Your task to perform on an android device: Clear the shopping cart on costco. Add macbook pro to the cart on costco Image 0: 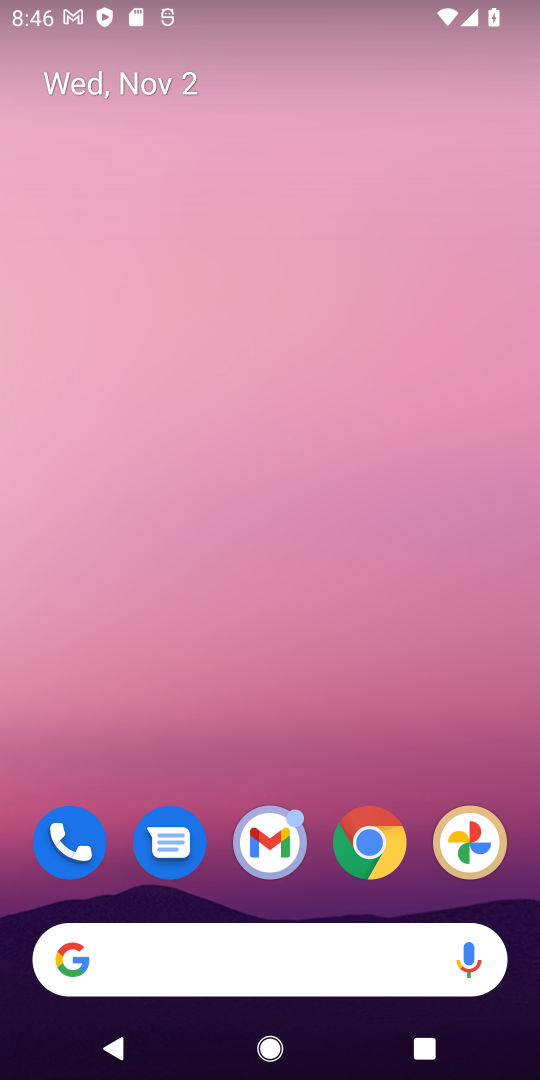
Step 0: drag from (332, 730) to (335, 124)
Your task to perform on an android device: Clear the shopping cart on costco. Add macbook pro to the cart on costco Image 1: 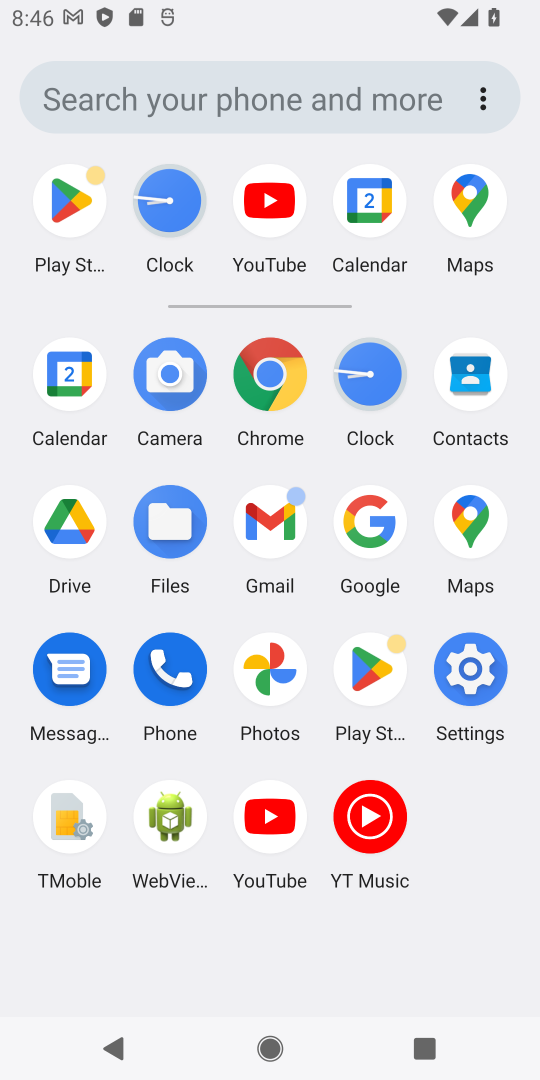
Step 1: click (378, 516)
Your task to perform on an android device: Clear the shopping cart on costco. Add macbook pro to the cart on costco Image 2: 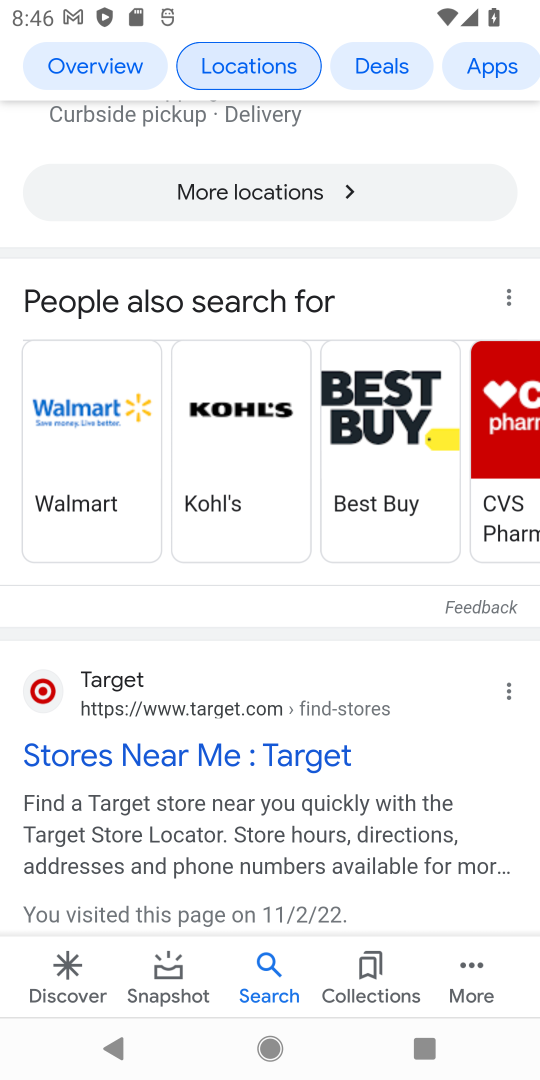
Step 2: drag from (246, 143) to (157, 896)
Your task to perform on an android device: Clear the shopping cart on costco. Add macbook pro to the cart on costco Image 3: 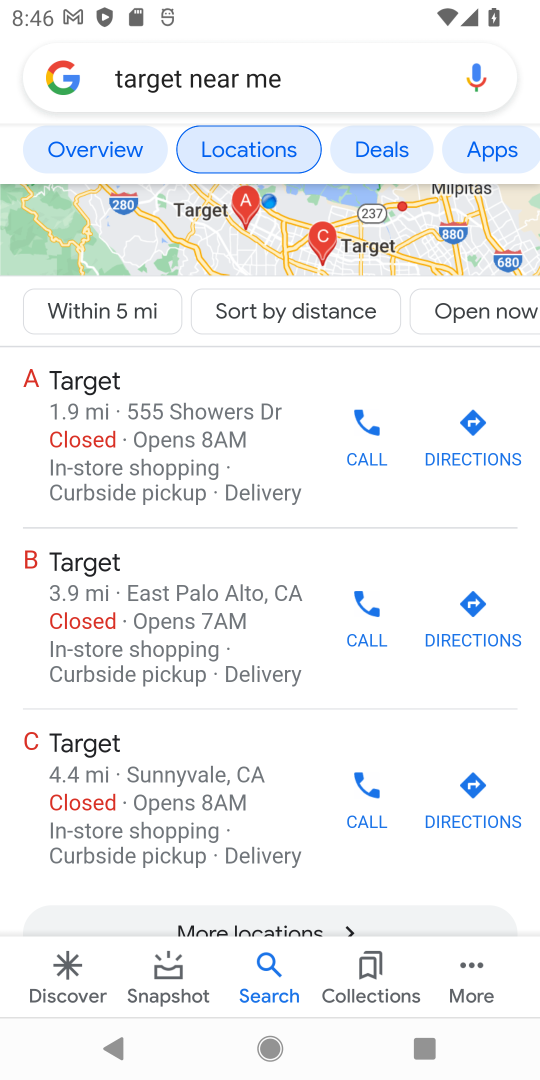
Step 3: drag from (223, 231) to (128, 856)
Your task to perform on an android device: Clear the shopping cart on costco. Add macbook pro to the cart on costco Image 4: 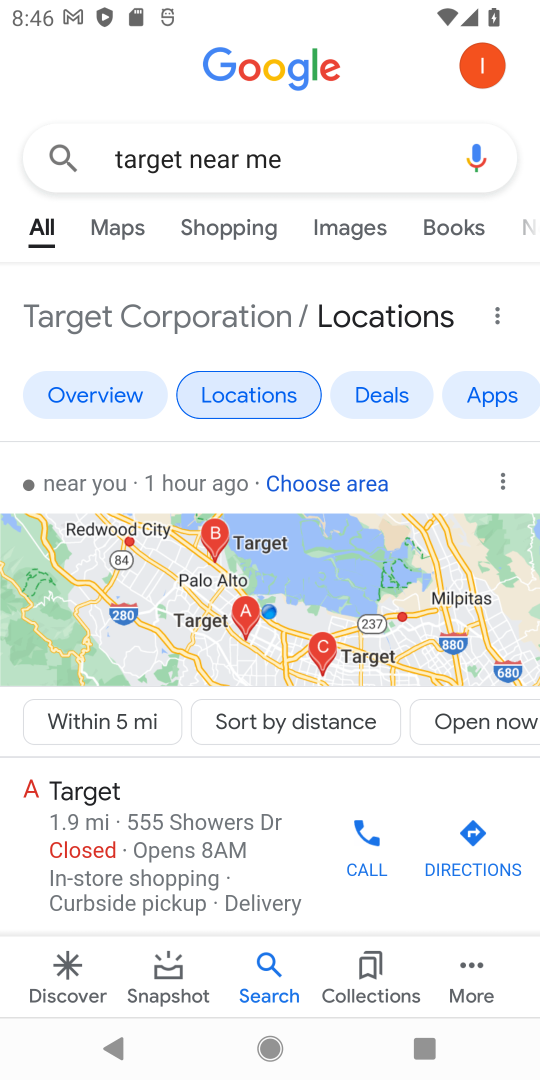
Step 4: click (277, 172)
Your task to perform on an android device: Clear the shopping cart on costco. Add macbook pro to the cart on costco Image 5: 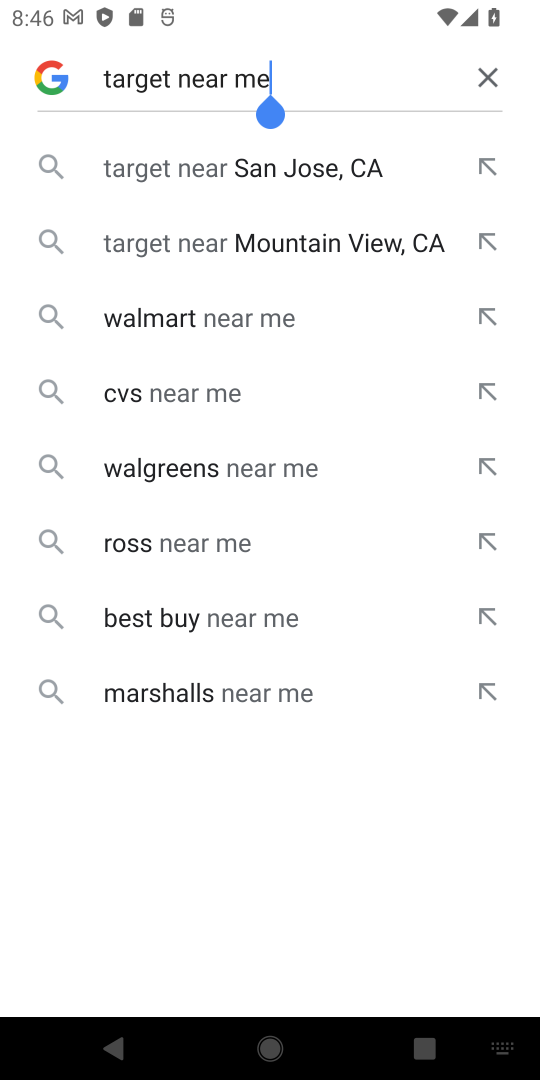
Step 5: click (476, 71)
Your task to perform on an android device: Clear the shopping cart on costco. Add macbook pro to the cart on costco Image 6: 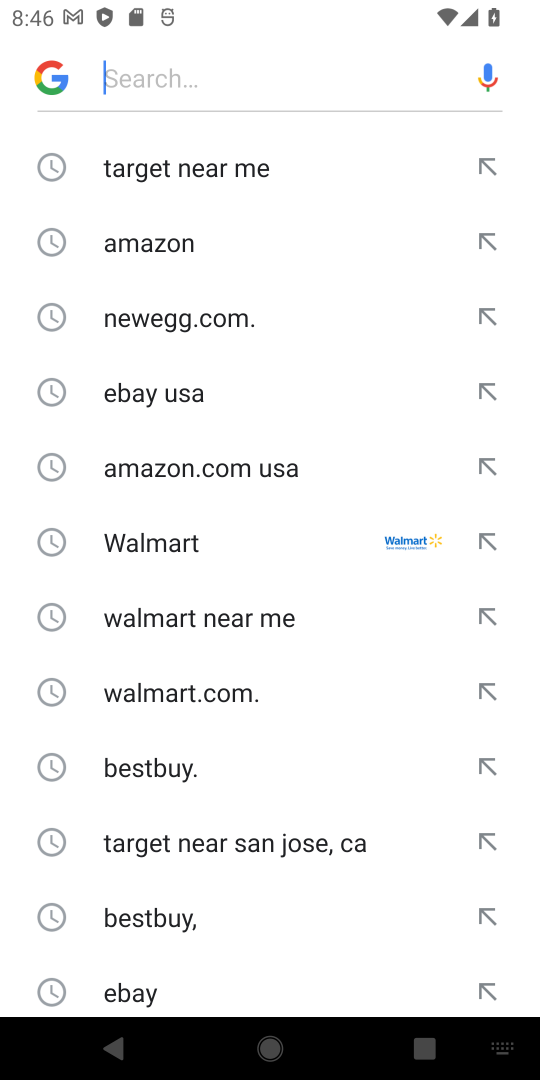
Step 6: click (214, 77)
Your task to perform on an android device: Clear the shopping cart on costco. Add macbook pro to the cart on costco Image 7: 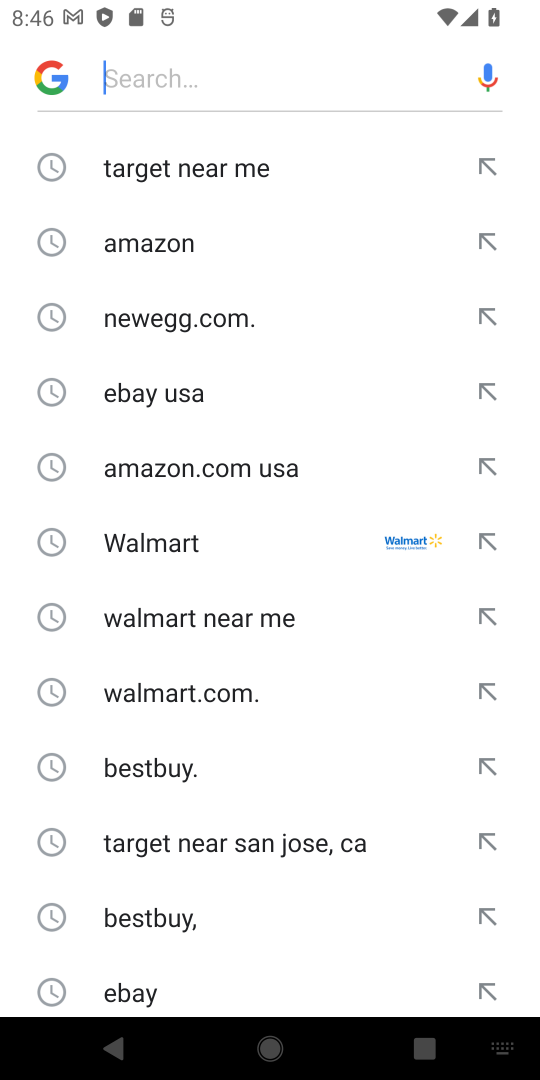
Step 7: type "costco "
Your task to perform on an android device: Clear the shopping cart on costco. Add macbook pro to the cart on costco Image 8: 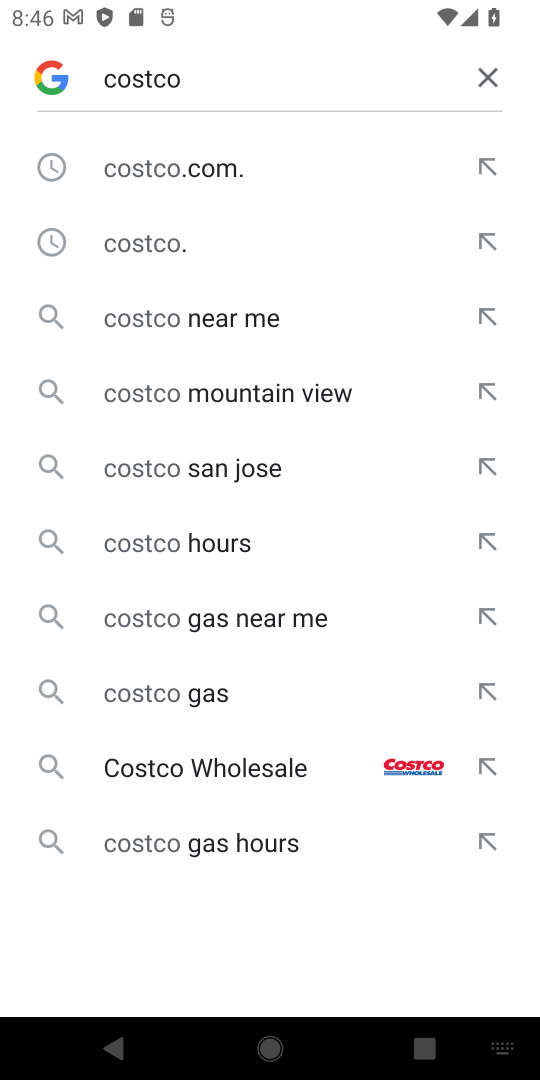
Step 8: click (249, 153)
Your task to perform on an android device: Clear the shopping cart on costco. Add macbook pro to the cart on costco Image 9: 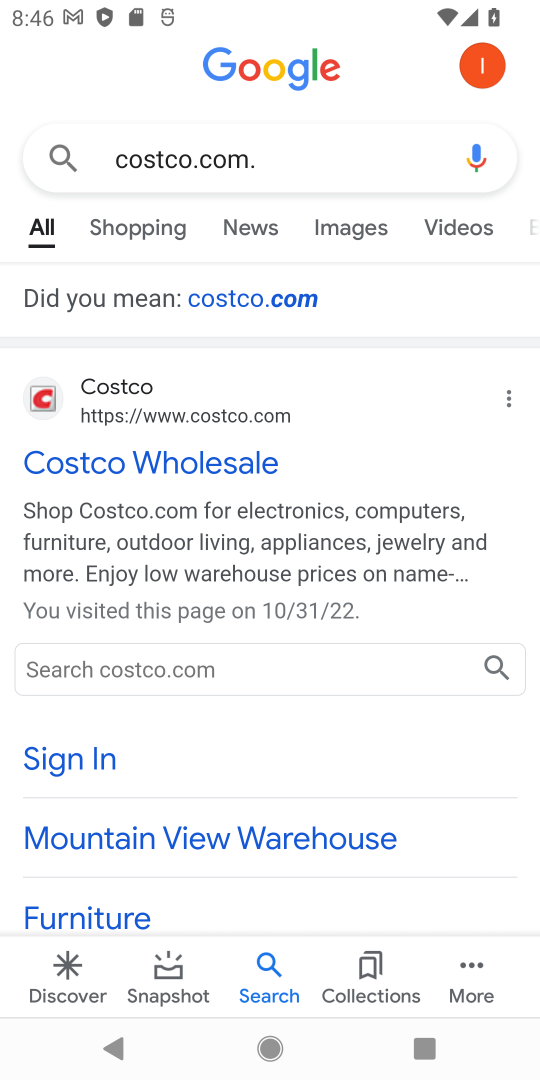
Step 9: click (40, 406)
Your task to perform on an android device: Clear the shopping cart on costco. Add macbook pro to the cart on costco Image 10: 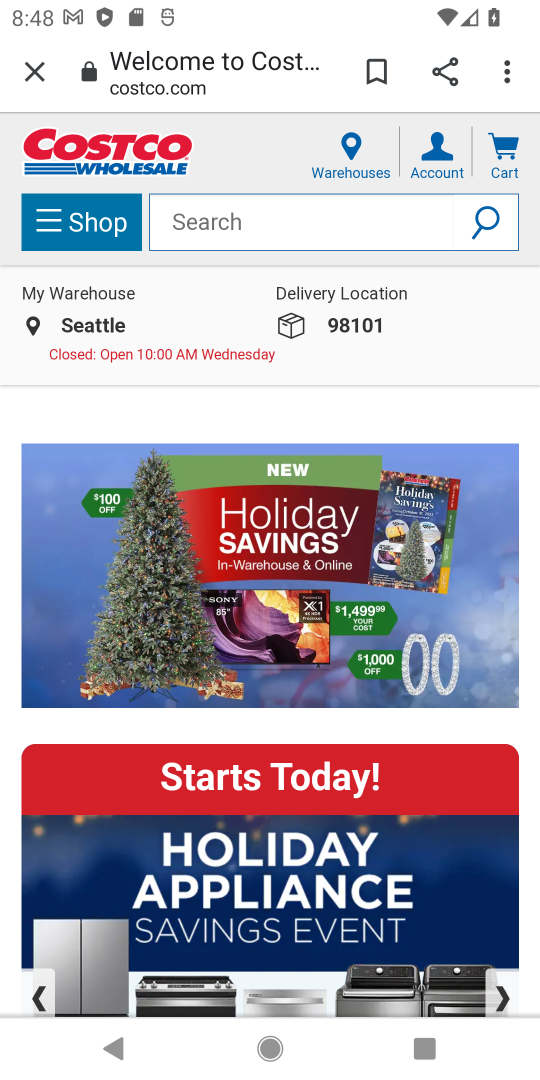
Step 10: click (286, 207)
Your task to perform on an android device: Clear the shopping cart on costco. Add macbook pro to the cart on costco Image 11: 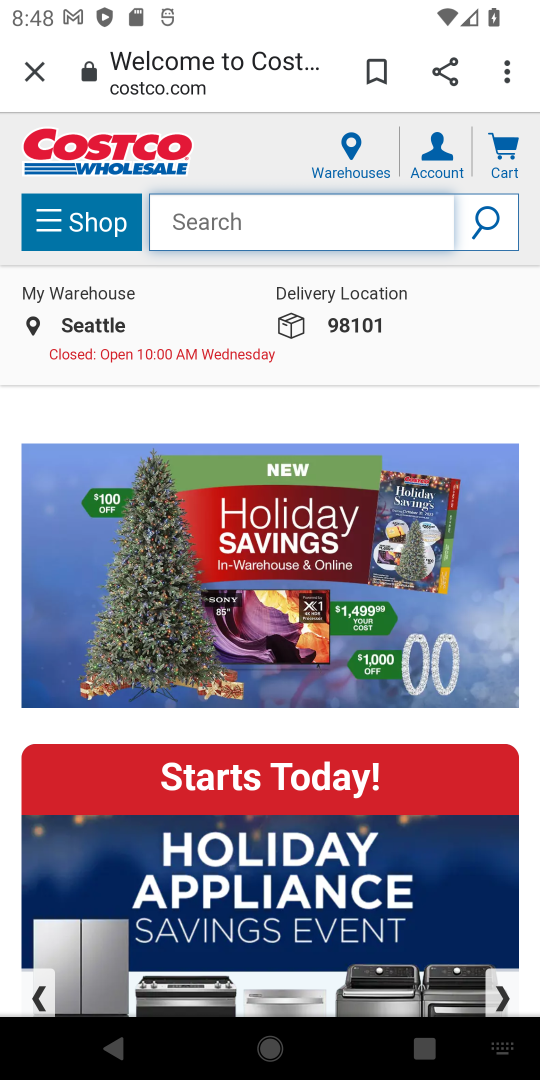
Step 11: type "macbook "
Your task to perform on an android device: Clear the shopping cart on costco. Add macbook pro to the cart on costco Image 12: 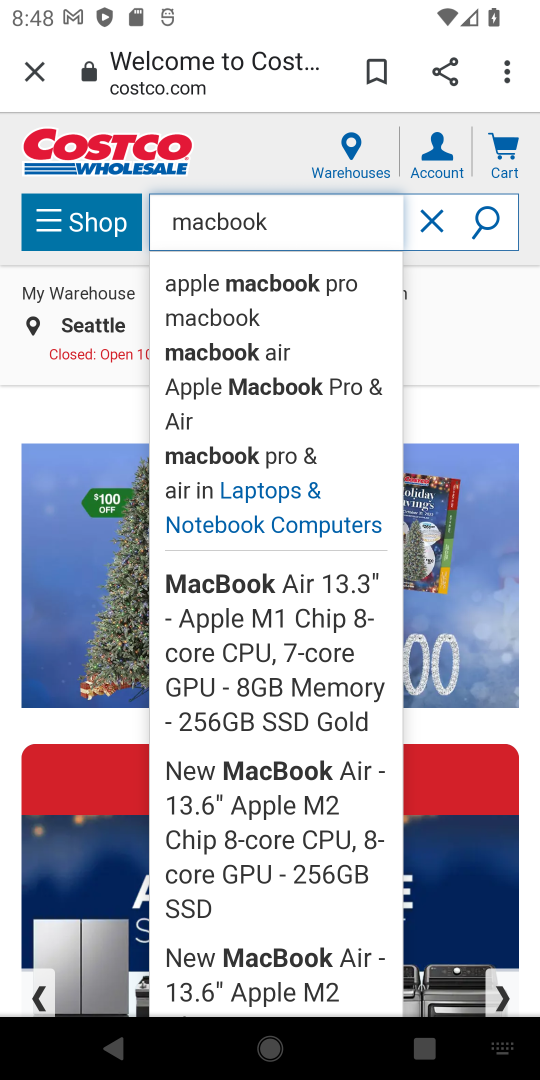
Step 12: click (215, 454)
Your task to perform on an android device: Clear the shopping cart on costco. Add macbook pro to the cart on costco Image 13: 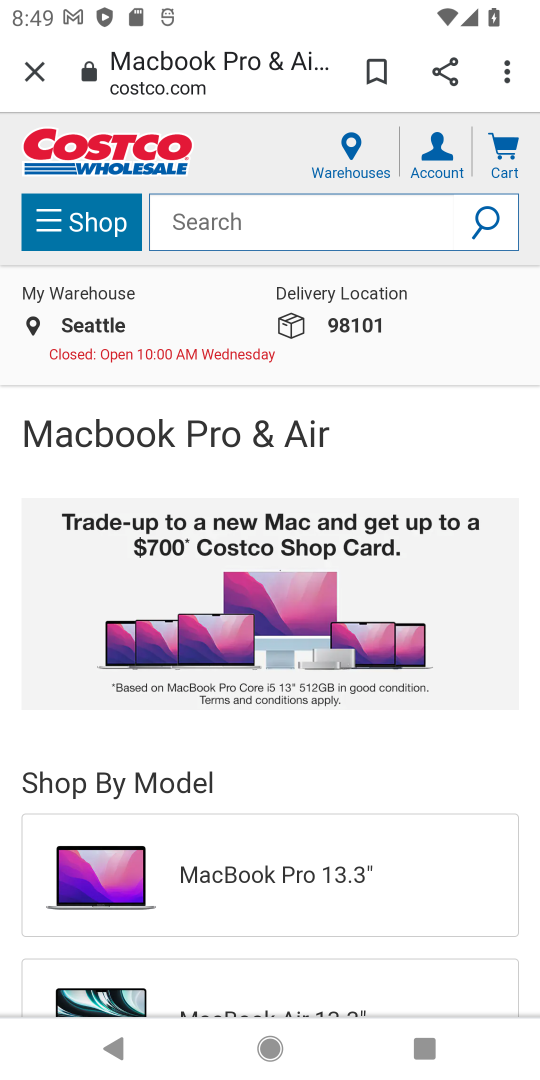
Step 13: drag from (225, 849) to (231, 572)
Your task to perform on an android device: Clear the shopping cart on costco. Add macbook pro to the cart on costco Image 14: 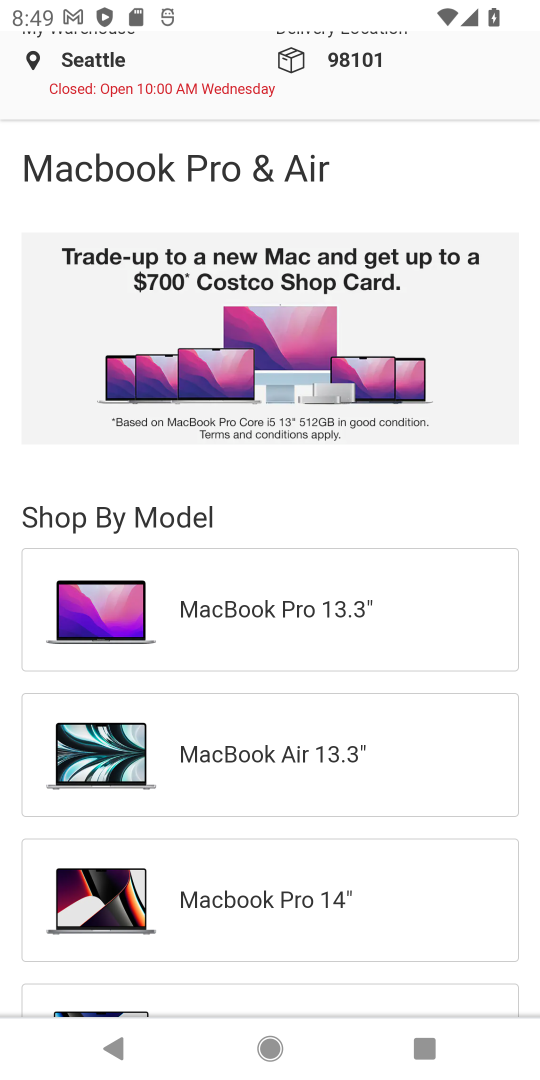
Step 14: click (205, 602)
Your task to perform on an android device: Clear the shopping cart on costco. Add macbook pro to the cart on costco Image 15: 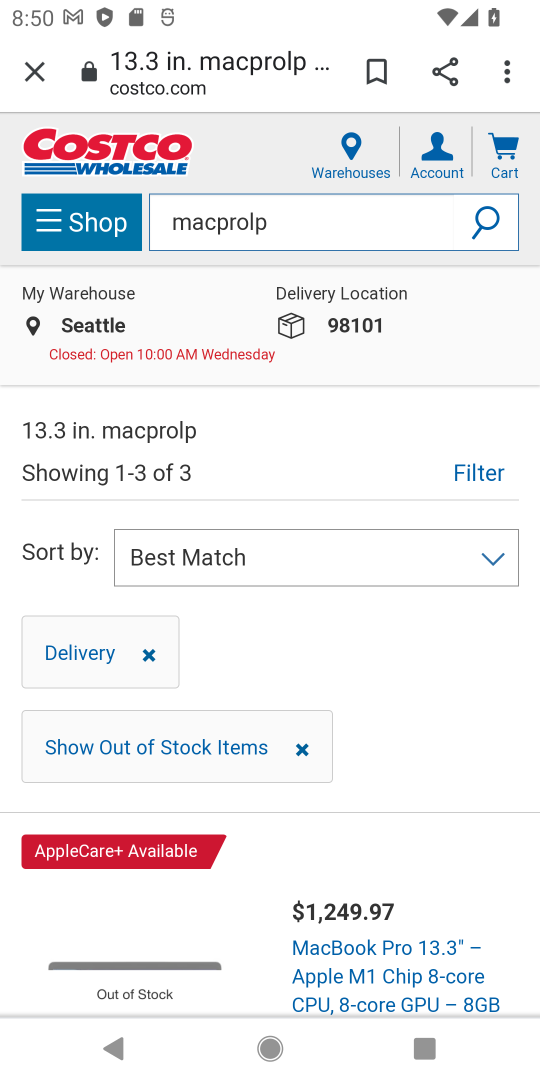
Step 15: drag from (292, 871) to (426, 298)
Your task to perform on an android device: Clear the shopping cart on costco. Add macbook pro to the cart on costco Image 16: 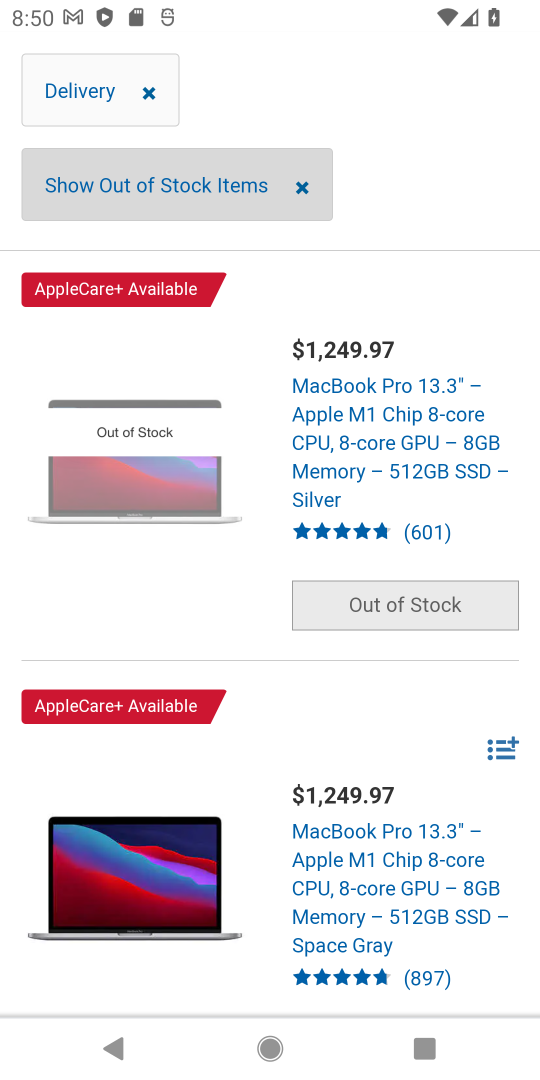
Step 16: drag from (276, 371) to (263, 926)
Your task to perform on an android device: Clear the shopping cart on costco. Add macbook pro to the cart on costco Image 17: 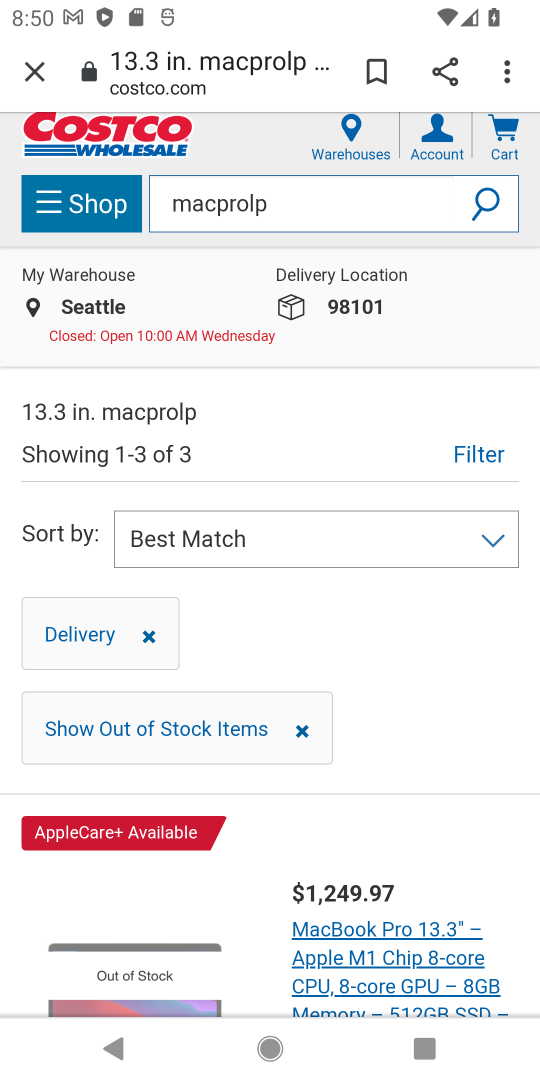
Step 17: press back button
Your task to perform on an android device: Clear the shopping cart on costco. Add macbook pro to the cart on costco Image 18: 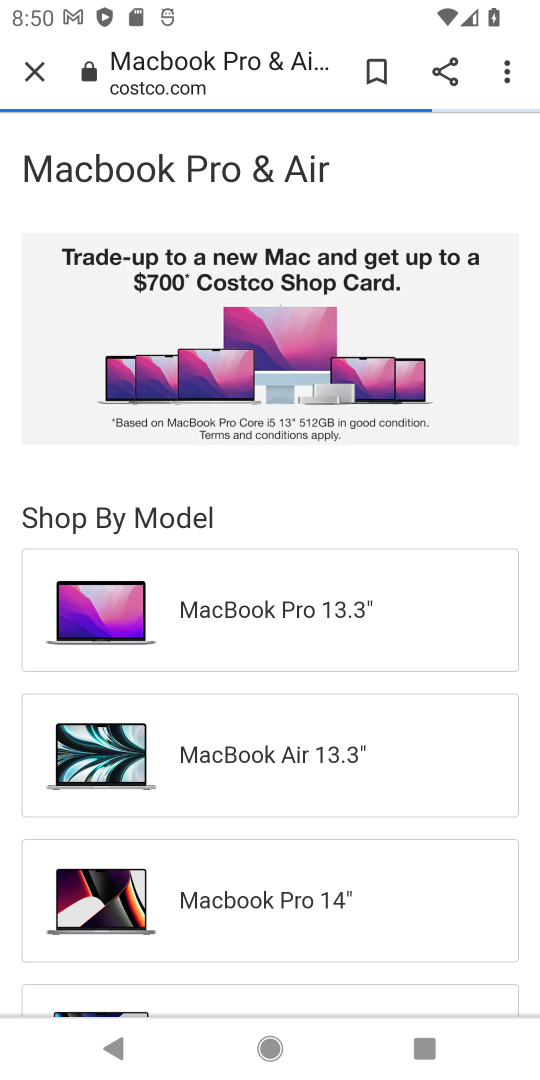
Step 18: click (109, 623)
Your task to perform on an android device: Clear the shopping cart on costco. Add macbook pro to the cart on costco Image 19: 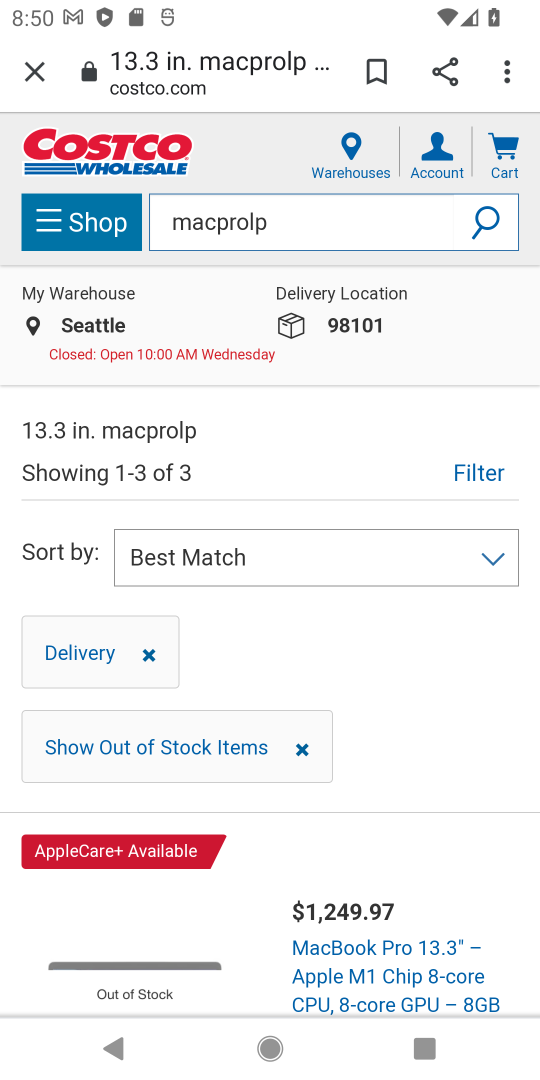
Step 19: drag from (173, 836) to (280, 195)
Your task to perform on an android device: Clear the shopping cart on costco. Add macbook pro to the cart on costco Image 20: 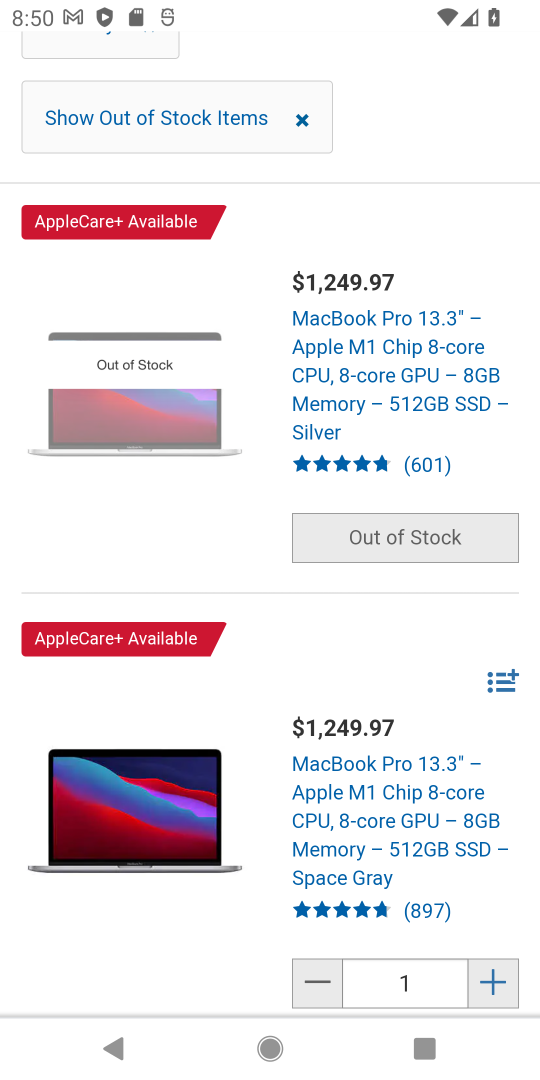
Step 20: drag from (306, 815) to (376, 622)
Your task to perform on an android device: Clear the shopping cart on costco. Add macbook pro to the cart on costco Image 21: 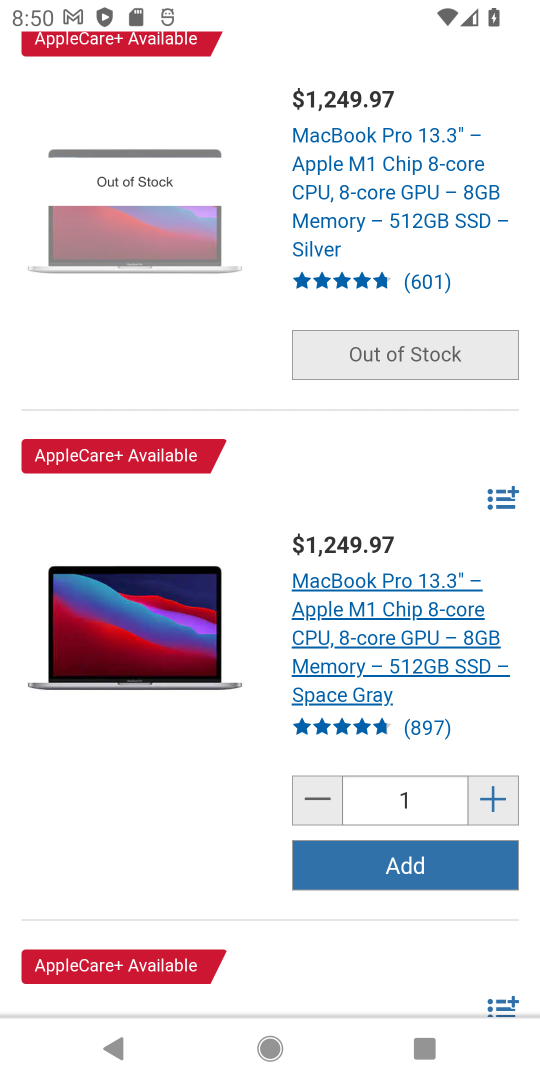
Step 21: click (366, 858)
Your task to perform on an android device: Clear the shopping cart on costco. Add macbook pro to the cart on costco Image 22: 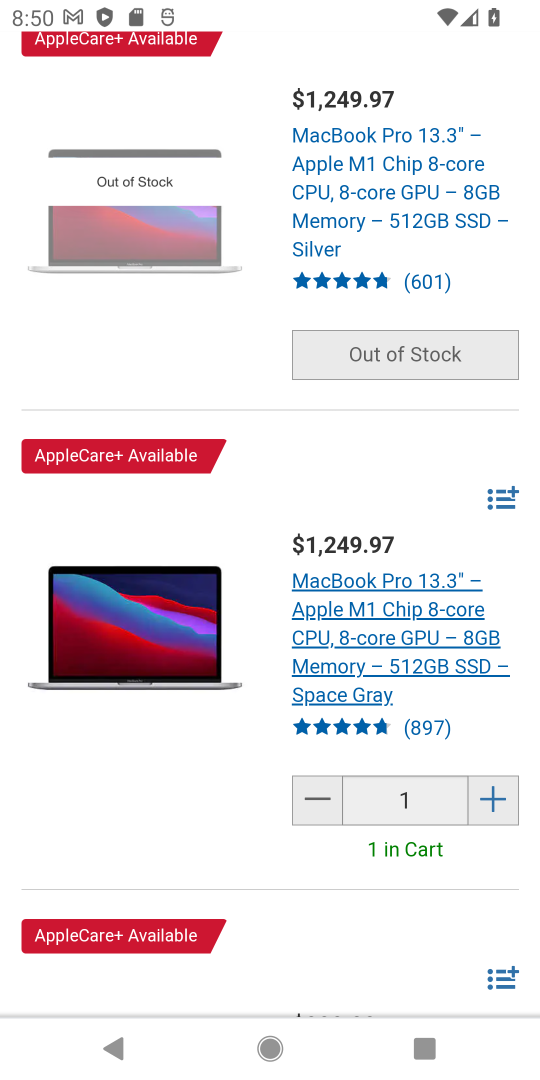
Step 22: task complete